Your task to perform on an android device: move an email to a new category in the gmail app Image 0: 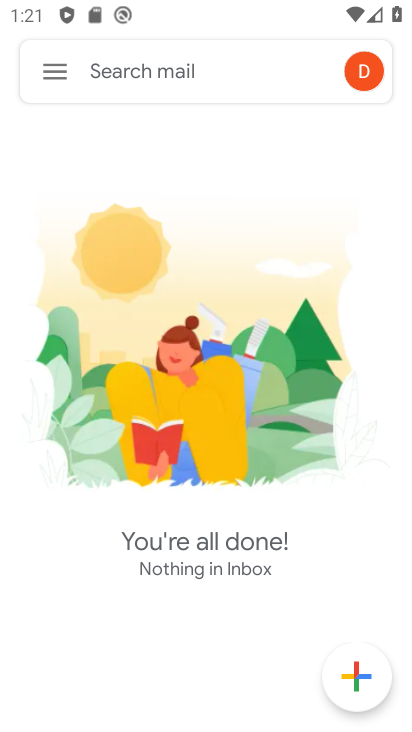
Step 0: press back button
Your task to perform on an android device: move an email to a new category in the gmail app Image 1: 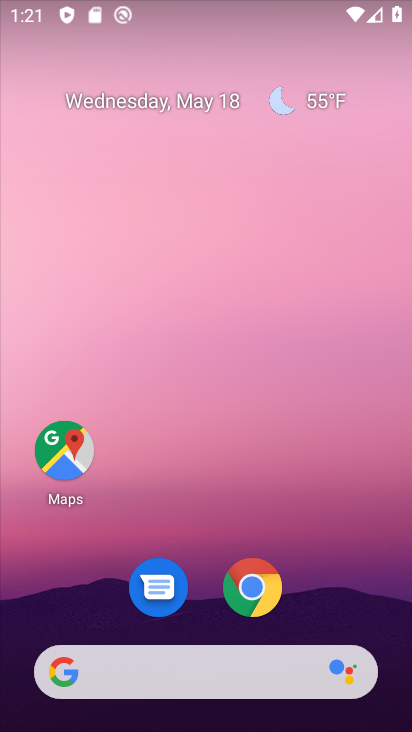
Step 1: drag from (268, 634) to (306, 93)
Your task to perform on an android device: move an email to a new category in the gmail app Image 2: 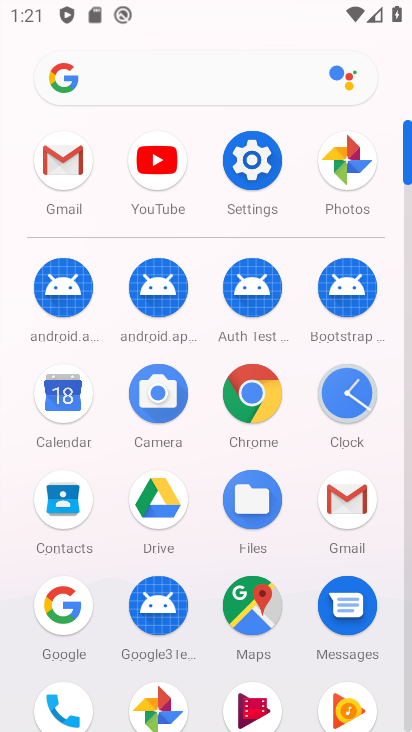
Step 2: click (60, 162)
Your task to perform on an android device: move an email to a new category in the gmail app Image 3: 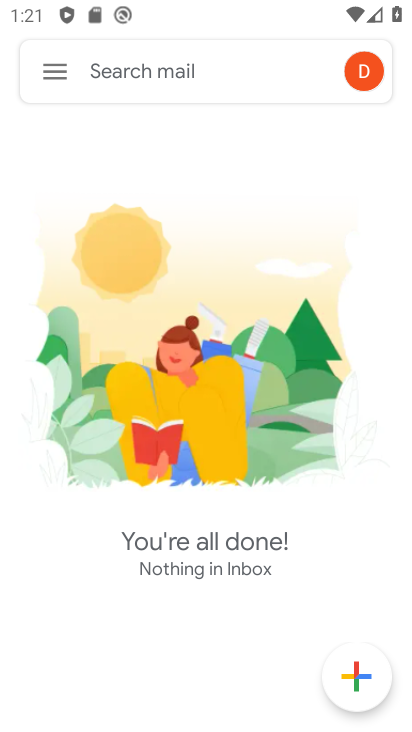
Step 3: click (49, 71)
Your task to perform on an android device: move an email to a new category in the gmail app Image 4: 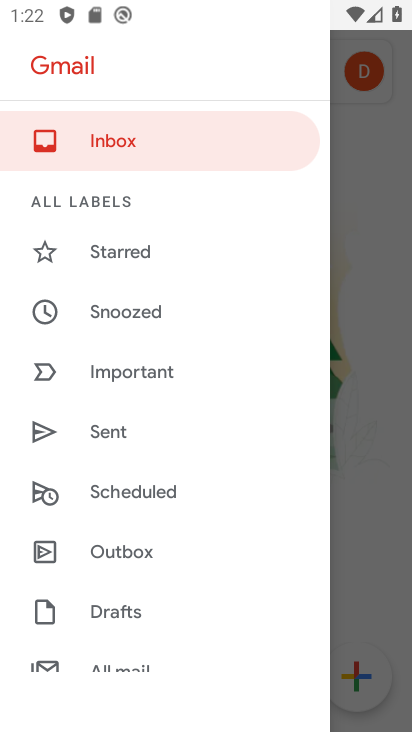
Step 4: drag from (133, 652) to (201, 300)
Your task to perform on an android device: move an email to a new category in the gmail app Image 5: 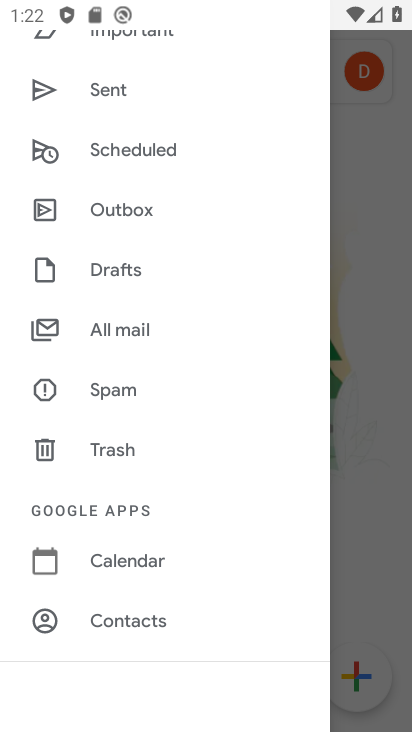
Step 5: click (125, 332)
Your task to perform on an android device: move an email to a new category in the gmail app Image 6: 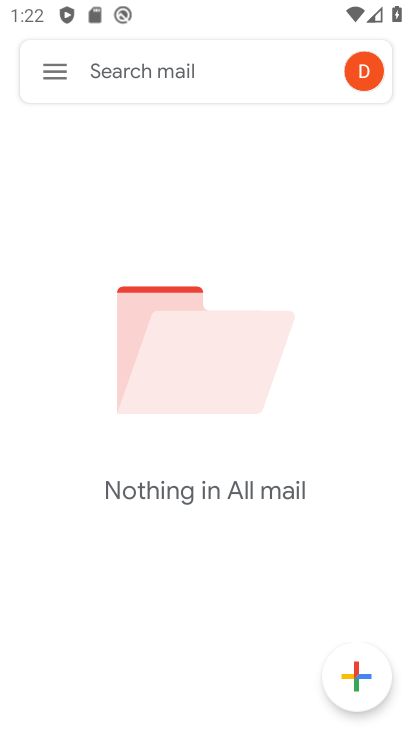
Step 6: task complete